Your task to perform on an android device: turn off notifications in google photos Image 0: 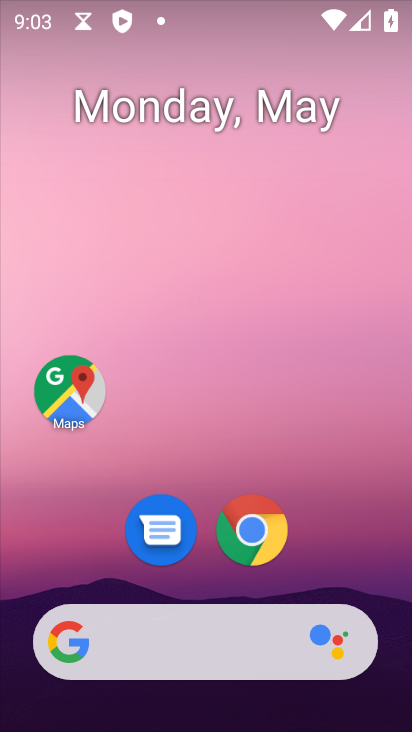
Step 0: drag from (361, 553) to (126, 2)
Your task to perform on an android device: turn off notifications in google photos Image 1: 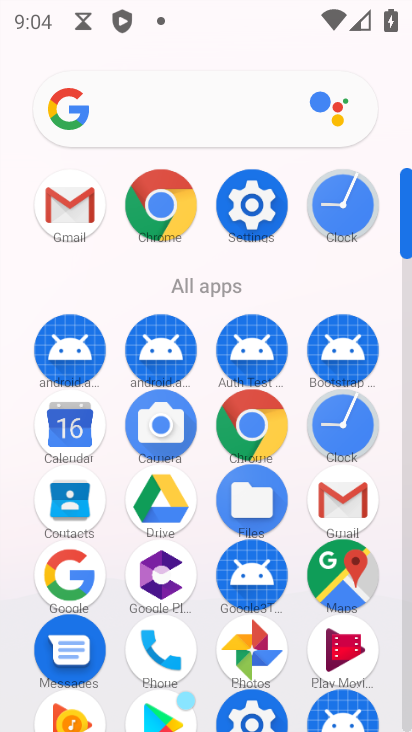
Step 1: click (250, 653)
Your task to perform on an android device: turn off notifications in google photos Image 2: 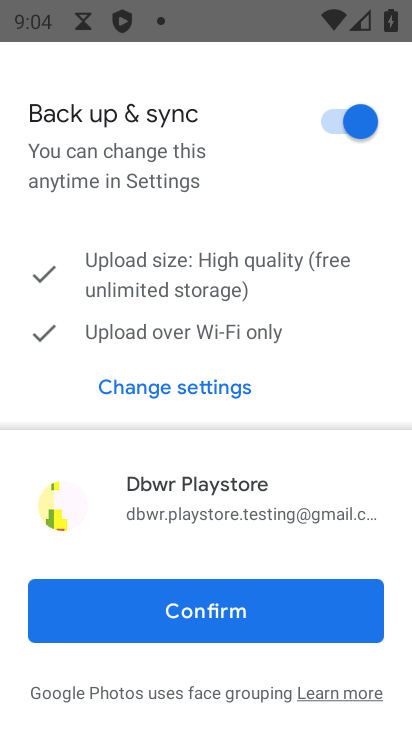
Step 2: click (276, 619)
Your task to perform on an android device: turn off notifications in google photos Image 3: 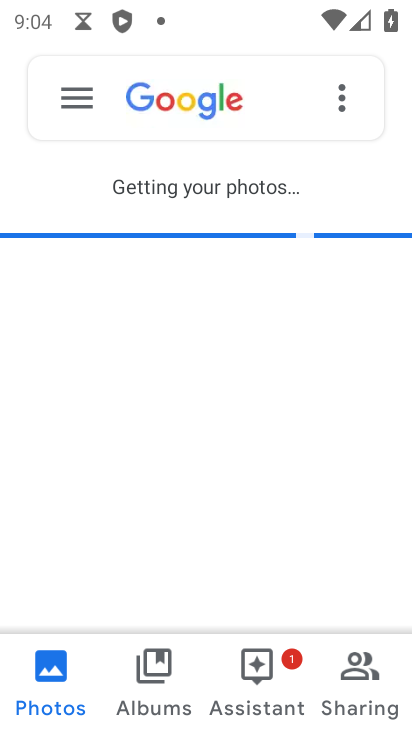
Step 3: click (69, 88)
Your task to perform on an android device: turn off notifications in google photos Image 4: 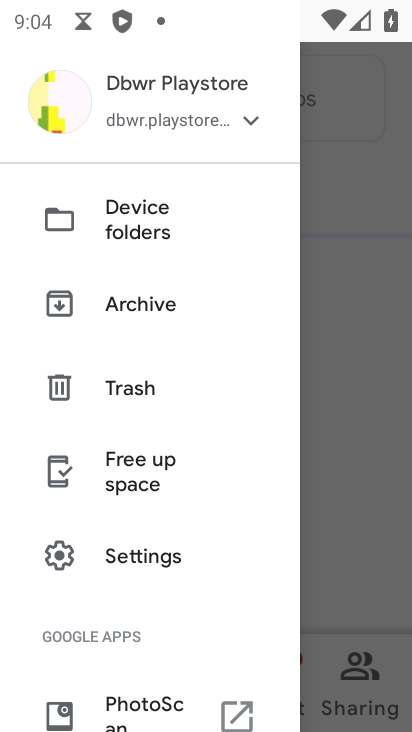
Step 4: drag from (187, 607) to (205, 140)
Your task to perform on an android device: turn off notifications in google photos Image 5: 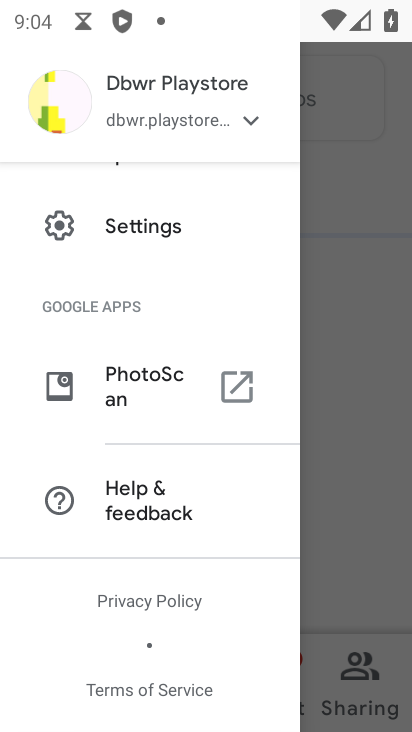
Step 5: drag from (169, 214) to (166, 556)
Your task to perform on an android device: turn off notifications in google photos Image 6: 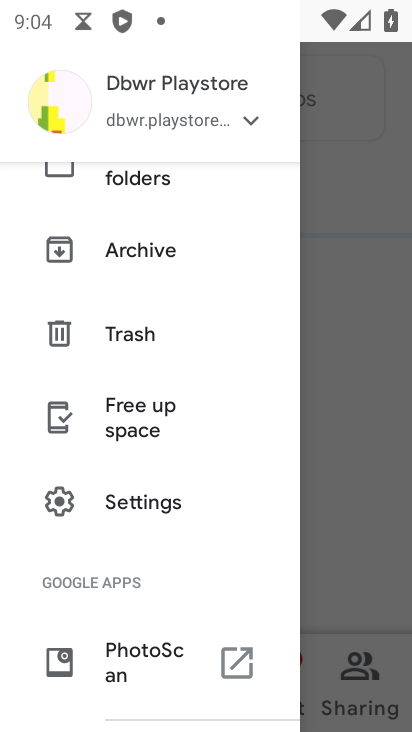
Step 6: click (146, 411)
Your task to perform on an android device: turn off notifications in google photos Image 7: 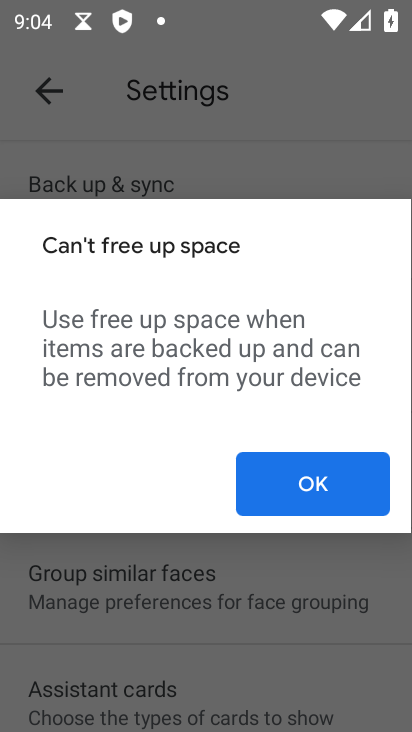
Step 7: click (42, 96)
Your task to perform on an android device: turn off notifications in google photos Image 8: 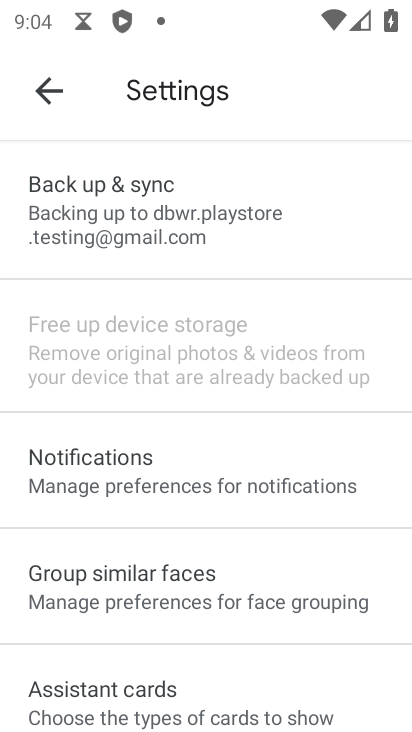
Step 8: click (297, 485)
Your task to perform on an android device: turn off notifications in google photos Image 9: 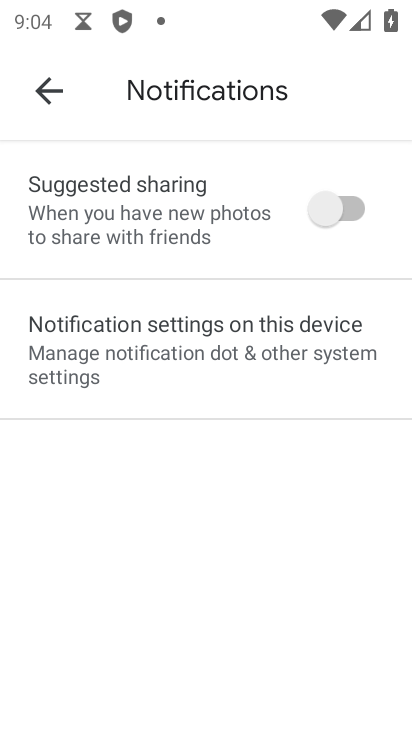
Step 9: click (202, 363)
Your task to perform on an android device: turn off notifications in google photos Image 10: 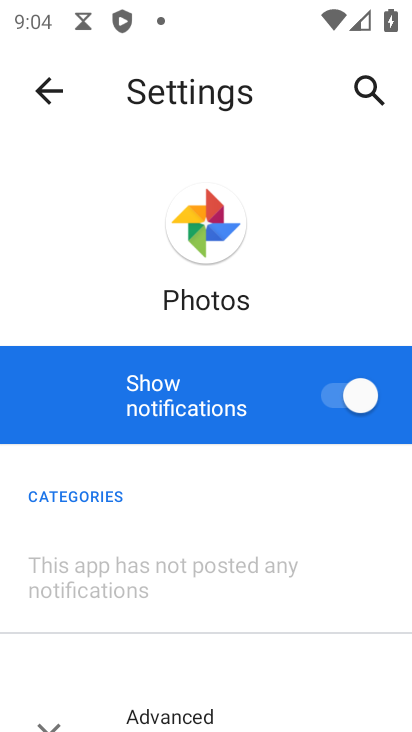
Step 10: click (354, 393)
Your task to perform on an android device: turn off notifications in google photos Image 11: 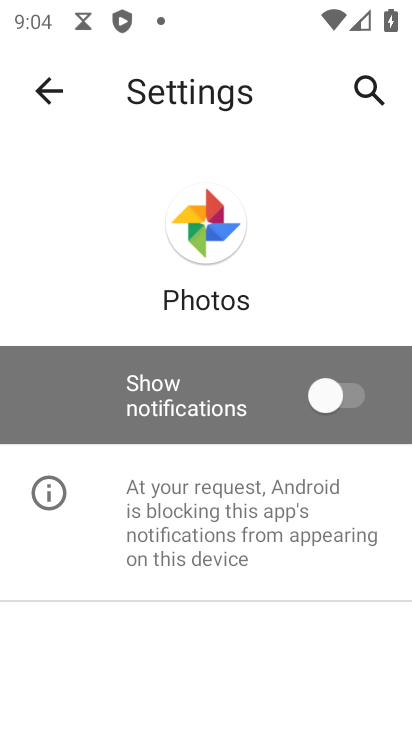
Step 11: task complete